Your task to perform on an android device: What's on my calendar today? Image 0: 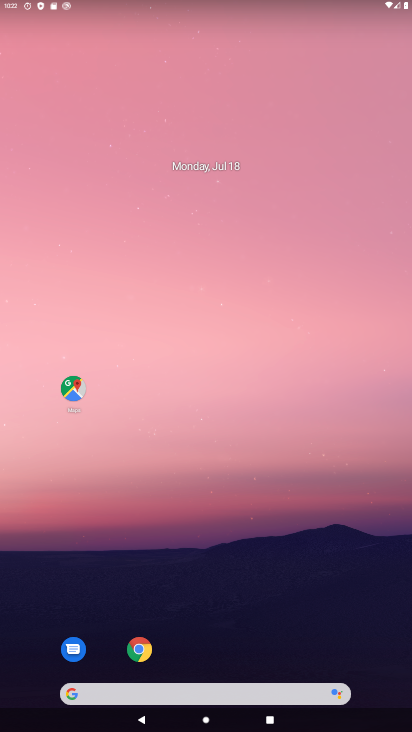
Step 0: drag from (49, 613) to (248, 93)
Your task to perform on an android device: What's on my calendar today? Image 1: 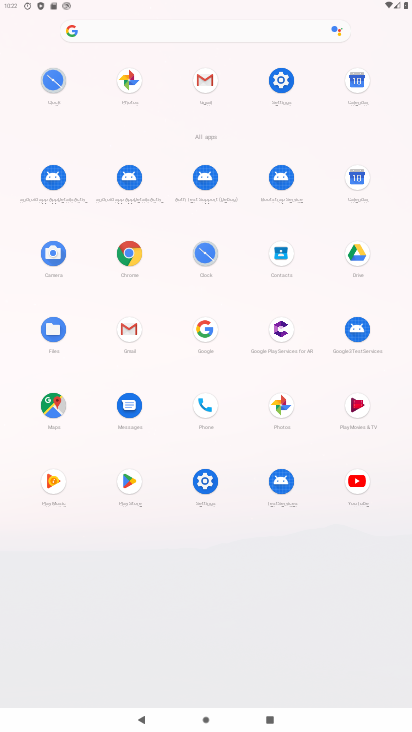
Step 1: click (351, 177)
Your task to perform on an android device: What's on my calendar today? Image 2: 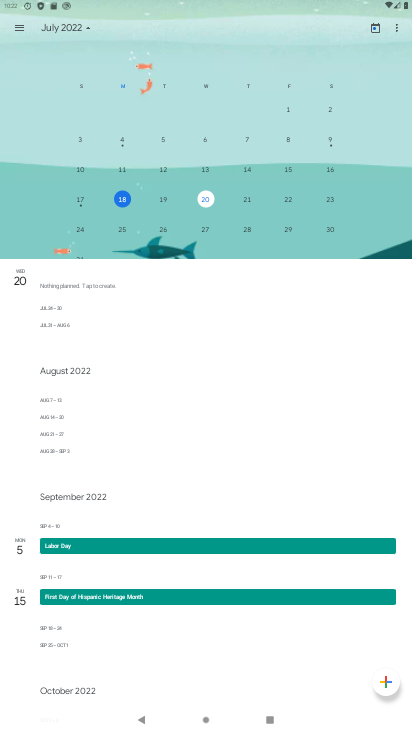
Step 2: click (124, 194)
Your task to perform on an android device: What's on my calendar today? Image 3: 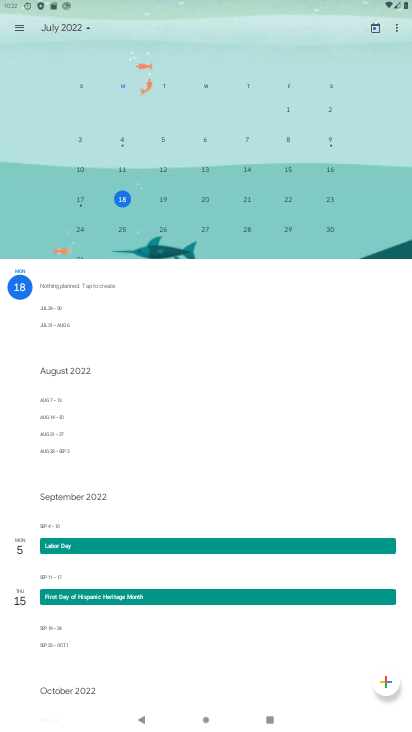
Step 3: task complete